Your task to perform on an android device: What's the weather going to be this weekend? Image 0: 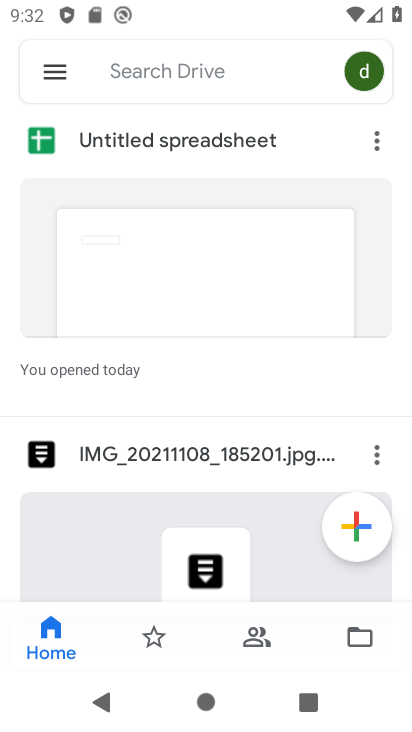
Step 0: press home button
Your task to perform on an android device: What's the weather going to be this weekend? Image 1: 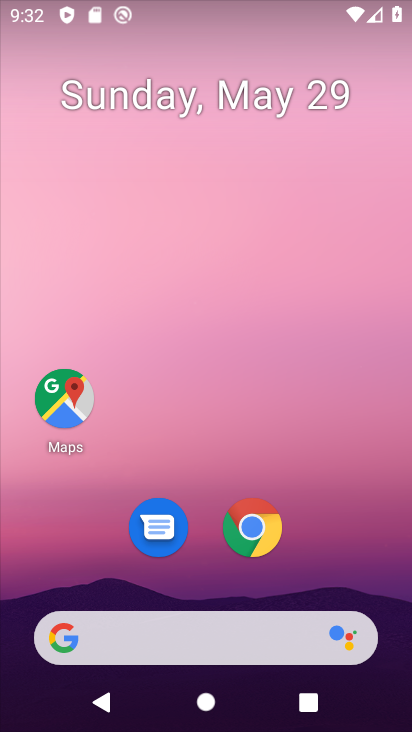
Step 1: click (249, 523)
Your task to perform on an android device: What's the weather going to be this weekend? Image 2: 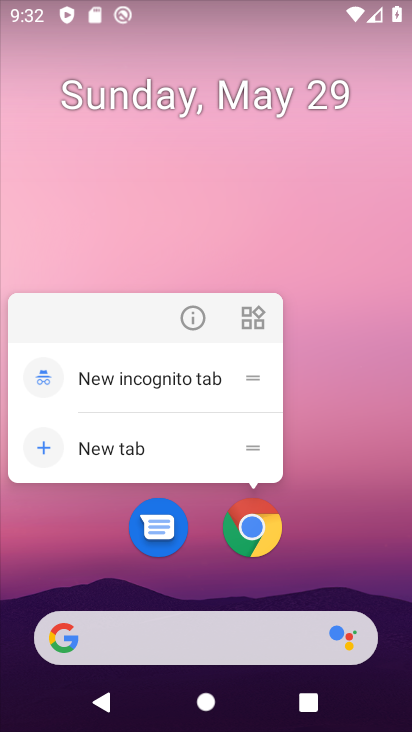
Step 2: click (249, 531)
Your task to perform on an android device: What's the weather going to be this weekend? Image 3: 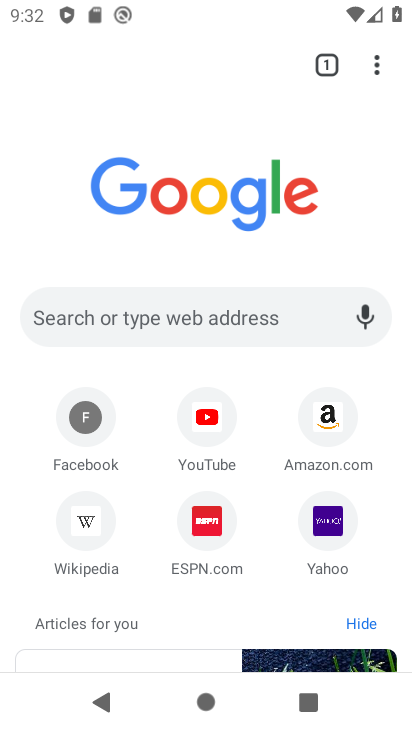
Step 3: click (211, 312)
Your task to perform on an android device: What's the weather going to be this weekend? Image 4: 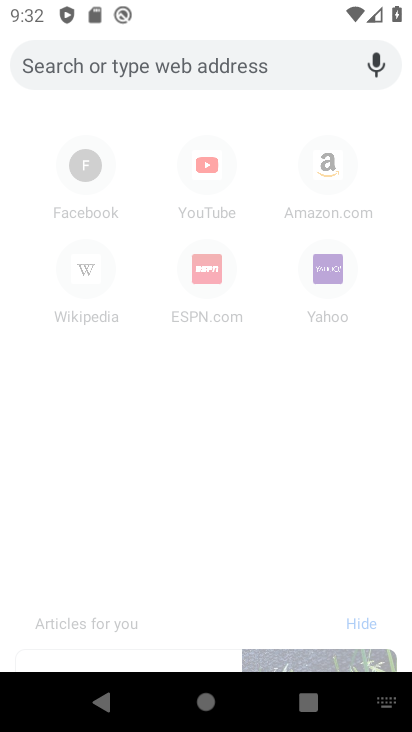
Step 4: type "weather"
Your task to perform on an android device: What's the weather going to be this weekend? Image 5: 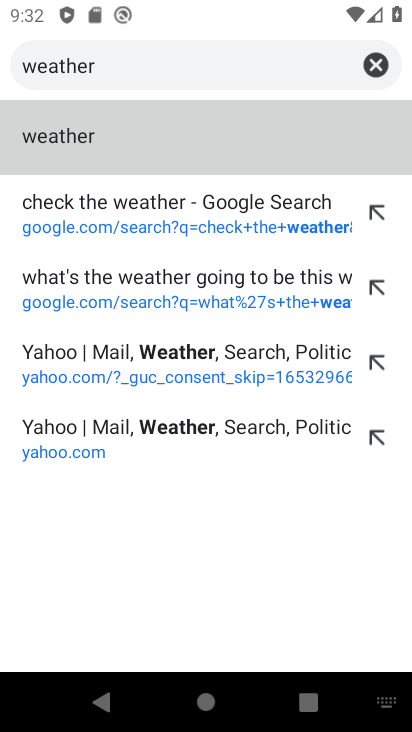
Step 5: click (29, 122)
Your task to perform on an android device: What's the weather going to be this weekend? Image 6: 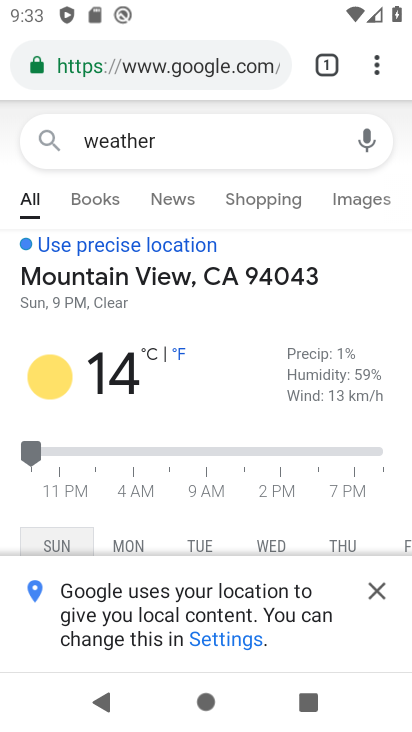
Step 6: task complete